Your task to perform on an android device: Is it going to rain tomorrow? Image 0: 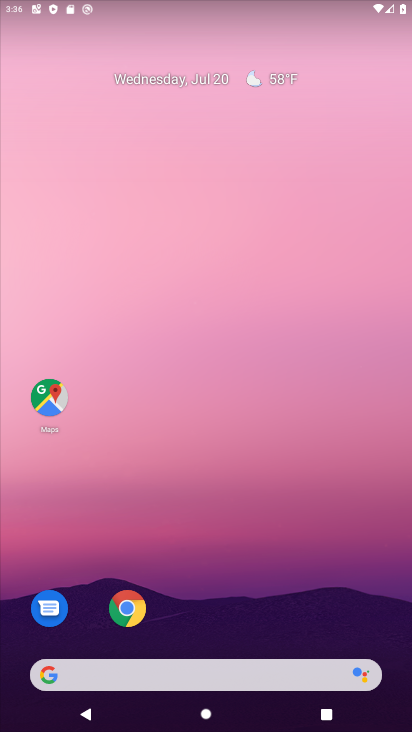
Step 0: drag from (304, 624) to (302, 152)
Your task to perform on an android device: Is it going to rain tomorrow? Image 1: 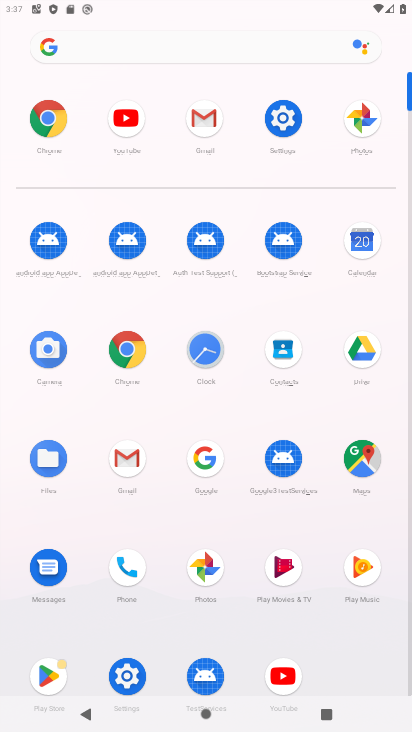
Step 1: click (213, 37)
Your task to perform on an android device: Is it going to rain tomorrow? Image 2: 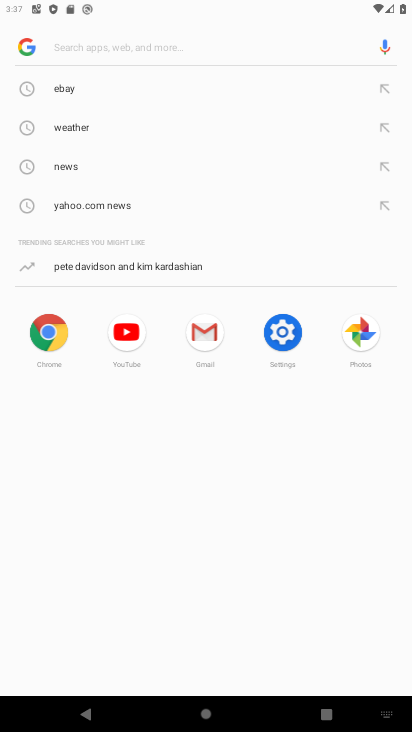
Step 2: type "rain"
Your task to perform on an android device: Is it going to rain tomorrow? Image 3: 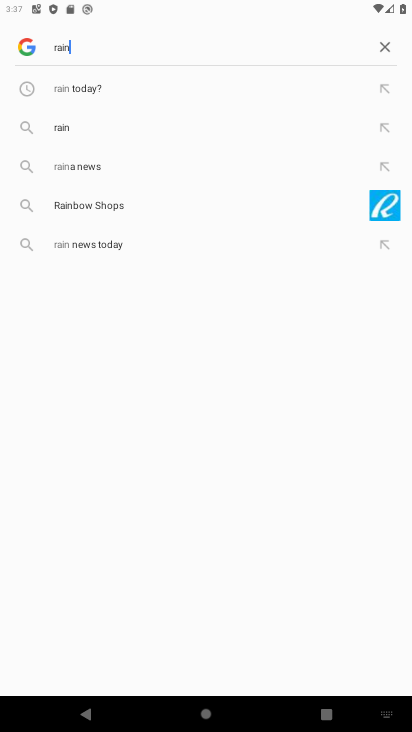
Step 3: click (84, 99)
Your task to perform on an android device: Is it going to rain tomorrow? Image 4: 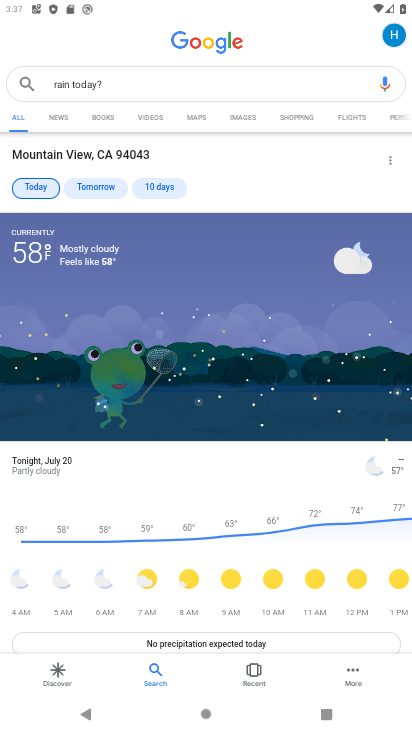
Step 4: task complete